Your task to perform on an android device: turn on airplane mode Image 0: 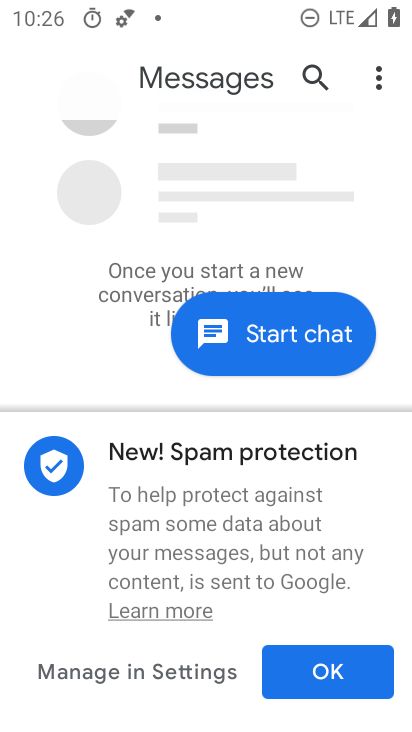
Step 0: press home button
Your task to perform on an android device: turn on airplane mode Image 1: 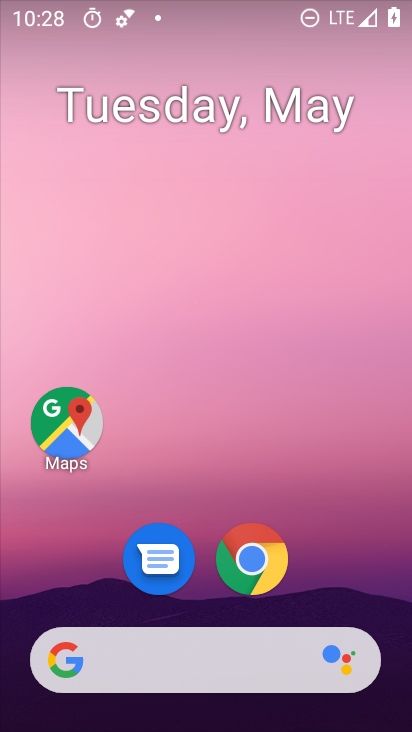
Step 1: drag from (261, 2) to (305, 523)
Your task to perform on an android device: turn on airplane mode Image 2: 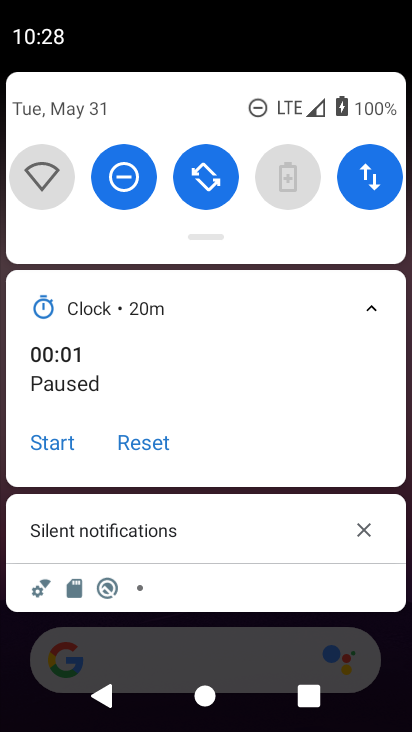
Step 2: drag from (295, 241) to (326, 618)
Your task to perform on an android device: turn on airplane mode Image 3: 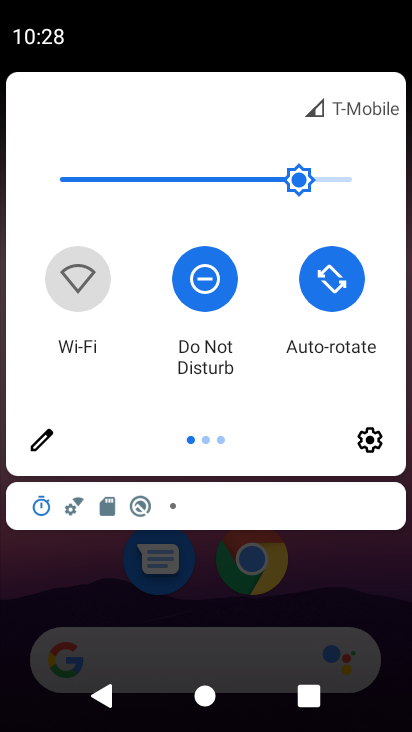
Step 3: drag from (330, 351) to (8, 388)
Your task to perform on an android device: turn on airplane mode Image 4: 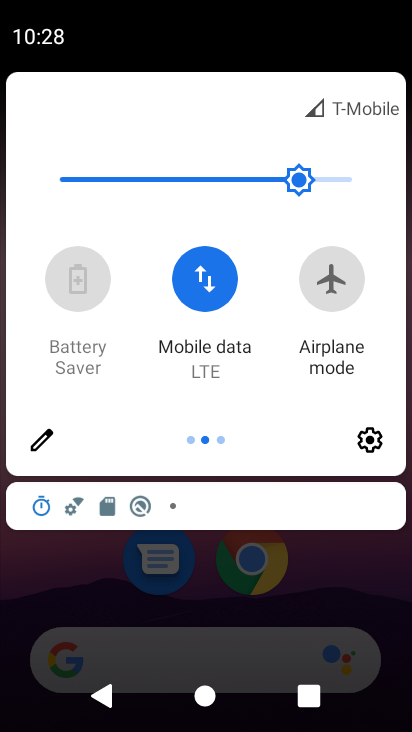
Step 4: click (323, 289)
Your task to perform on an android device: turn on airplane mode Image 5: 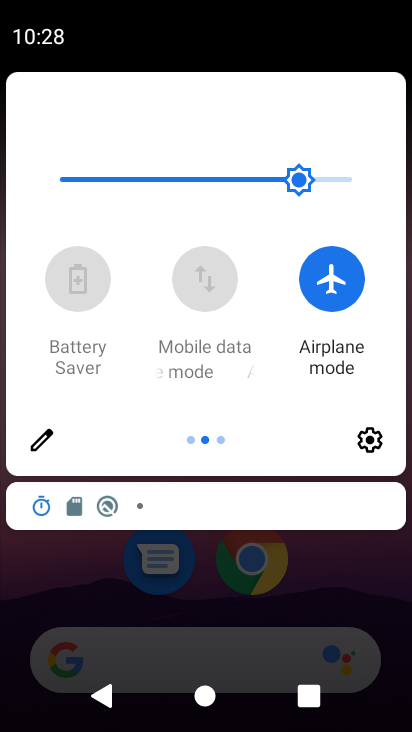
Step 5: task complete